Your task to perform on an android device: Open maps Image 0: 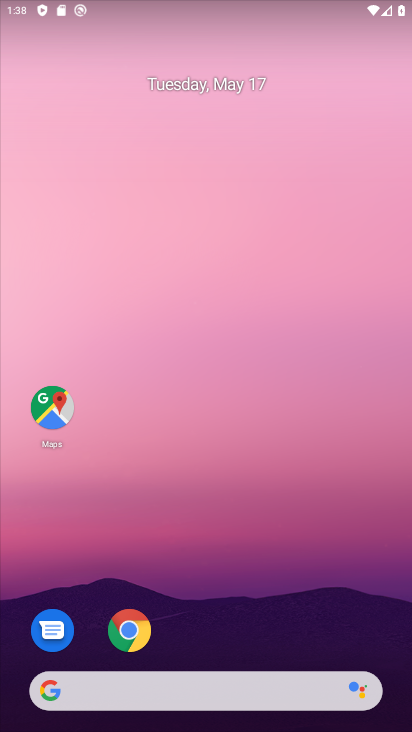
Step 0: drag from (360, 612) to (323, 208)
Your task to perform on an android device: Open maps Image 1: 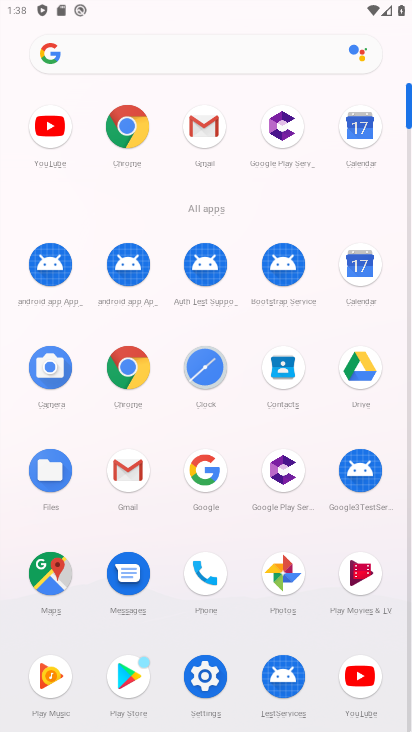
Step 1: click (41, 581)
Your task to perform on an android device: Open maps Image 2: 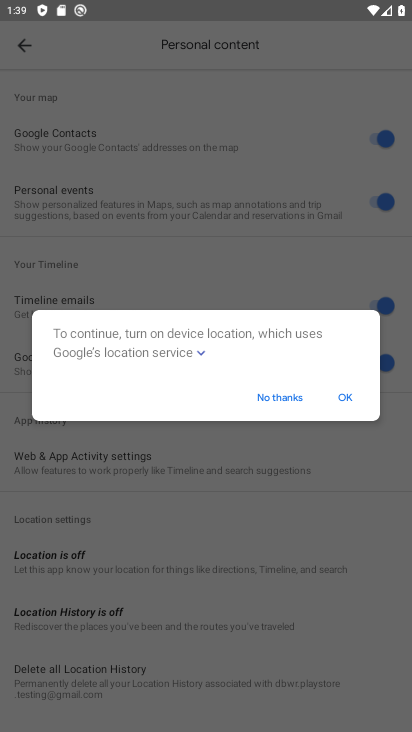
Step 2: click (348, 407)
Your task to perform on an android device: Open maps Image 3: 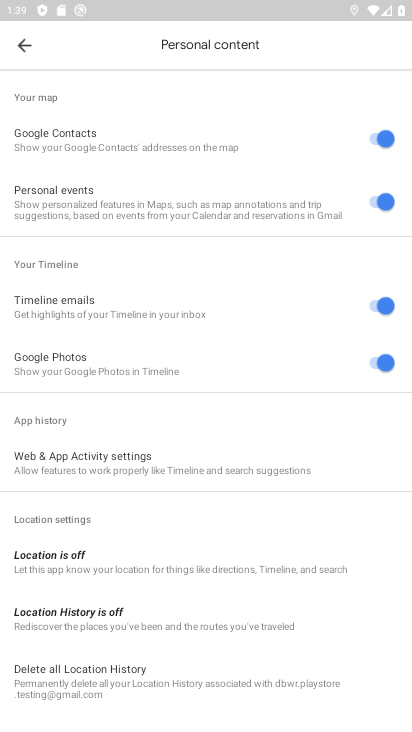
Step 3: press home button
Your task to perform on an android device: Open maps Image 4: 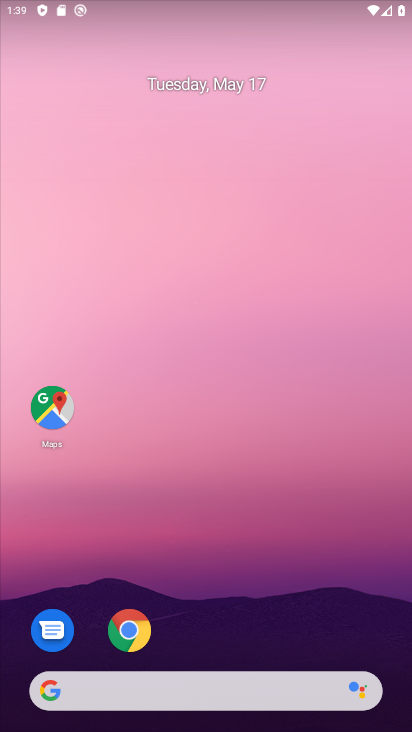
Step 4: drag from (366, 592) to (279, 148)
Your task to perform on an android device: Open maps Image 5: 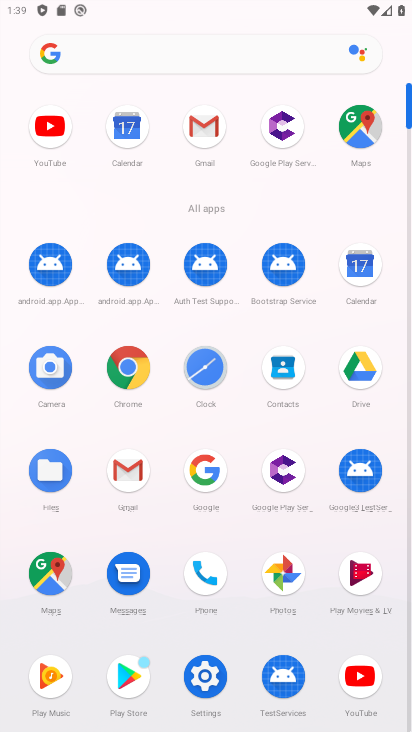
Step 5: click (39, 571)
Your task to perform on an android device: Open maps Image 6: 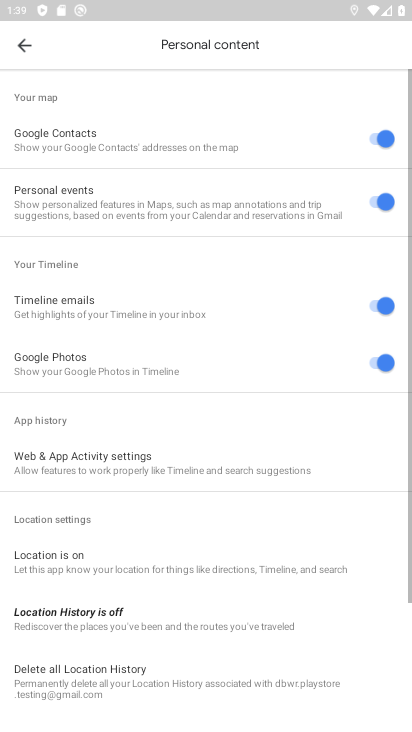
Step 6: click (28, 53)
Your task to perform on an android device: Open maps Image 7: 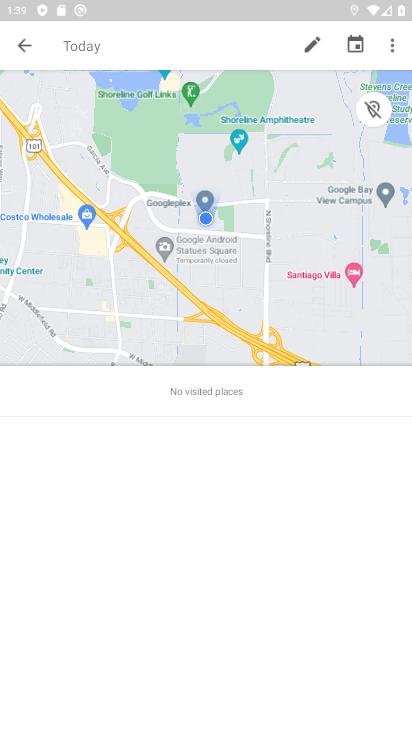
Step 7: task complete